Your task to perform on an android device: move an email to a new category in the gmail app Image 0: 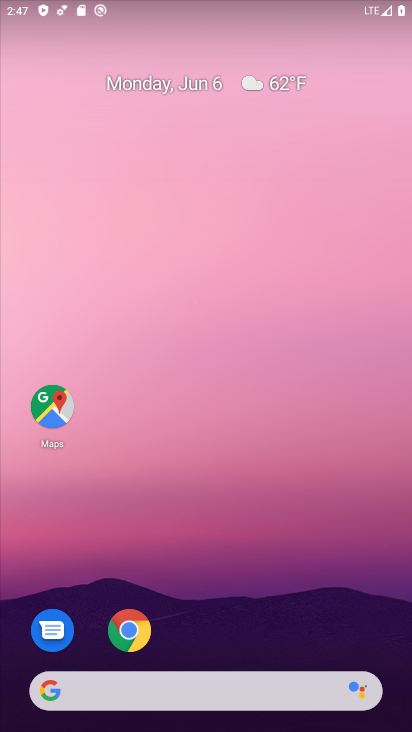
Step 0: press home button
Your task to perform on an android device: move an email to a new category in the gmail app Image 1: 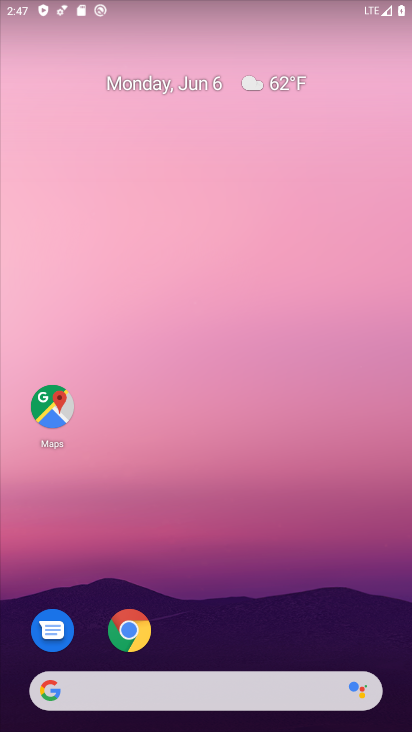
Step 1: drag from (290, 654) to (268, 85)
Your task to perform on an android device: move an email to a new category in the gmail app Image 2: 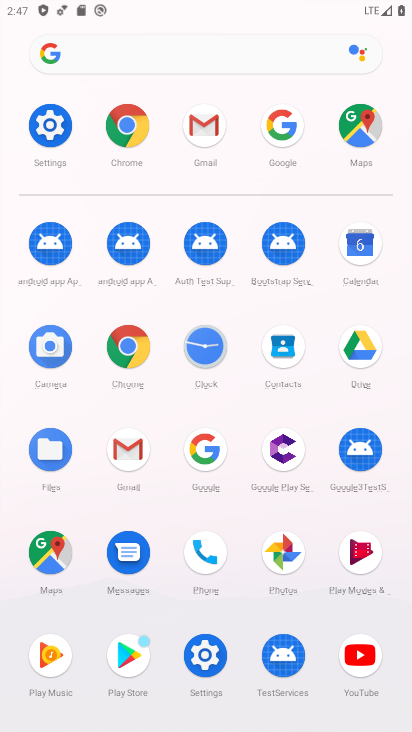
Step 2: click (192, 132)
Your task to perform on an android device: move an email to a new category in the gmail app Image 3: 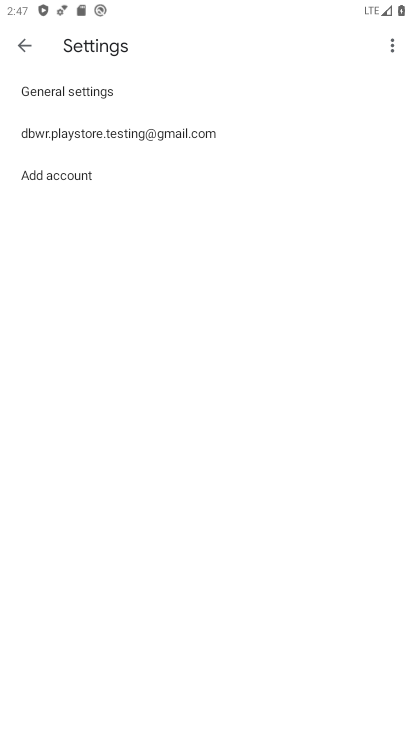
Step 3: click (22, 36)
Your task to perform on an android device: move an email to a new category in the gmail app Image 4: 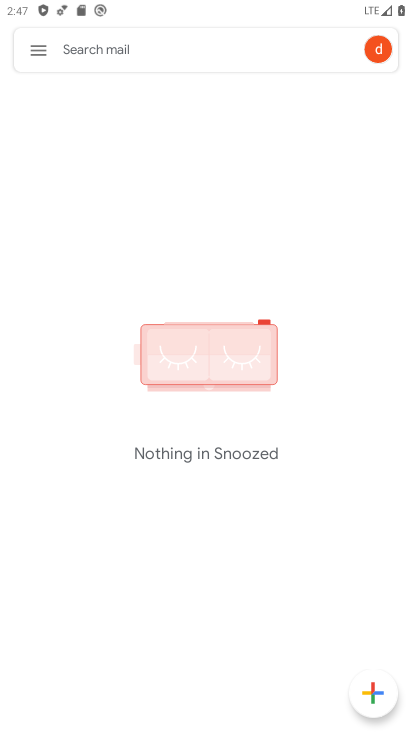
Step 4: click (22, 36)
Your task to perform on an android device: move an email to a new category in the gmail app Image 5: 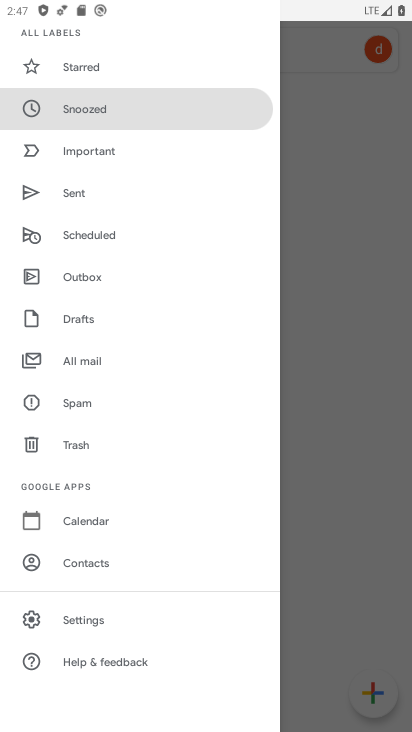
Step 5: task complete